Your task to perform on an android device: Go to Amazon Image 0: 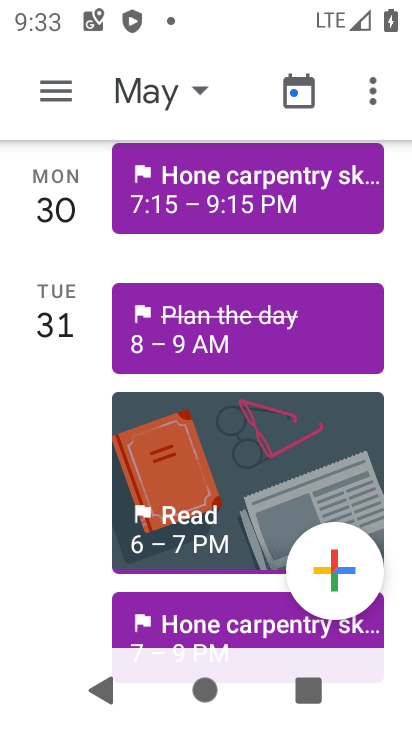
Step 0: press home button
Your task to perform on an android device: Go to Amazon Image 1: 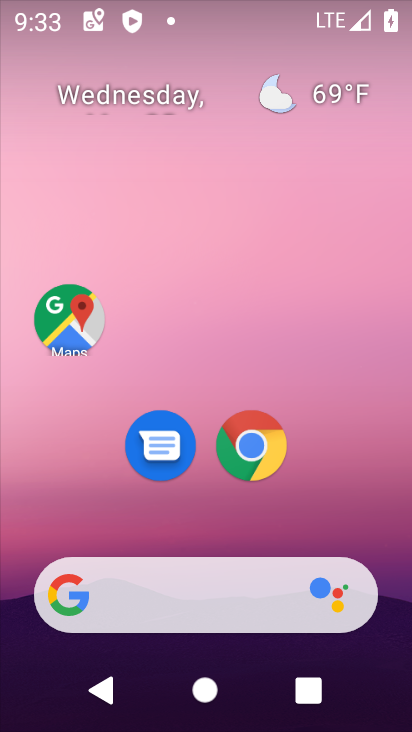
Step 1: drag from (271, 513) to (232, 130)
Your task to perform on an android device: Go to Amazon Image 2: 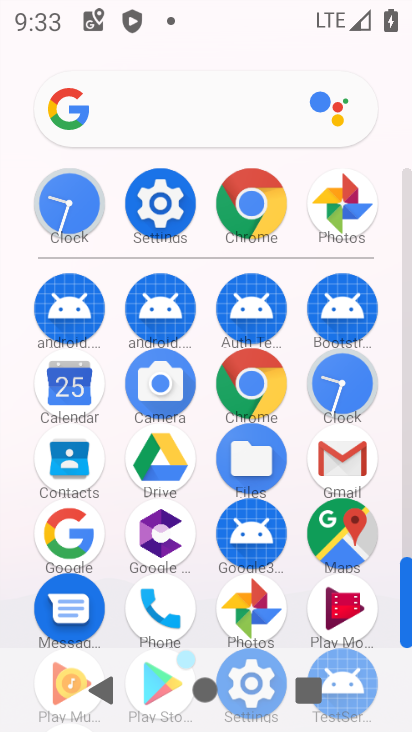
Step 2: click (247, 197)
Your task to perform on an android device: Go to Amazon Image 3: 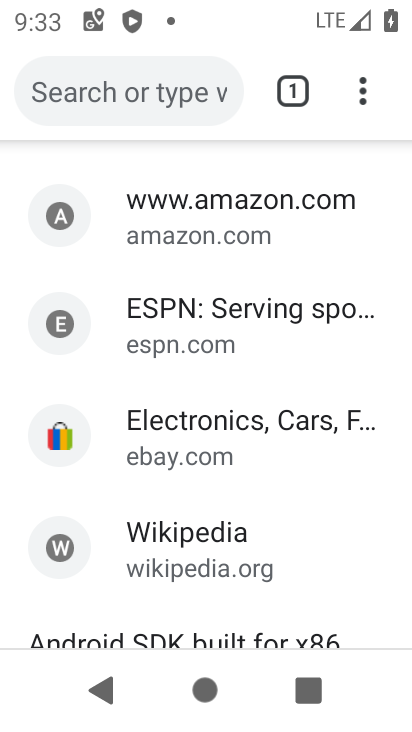
Step 3: drag from (363, 97) to (137, 176)
Your task to perform on an android device: Go to Amazon Image 4: 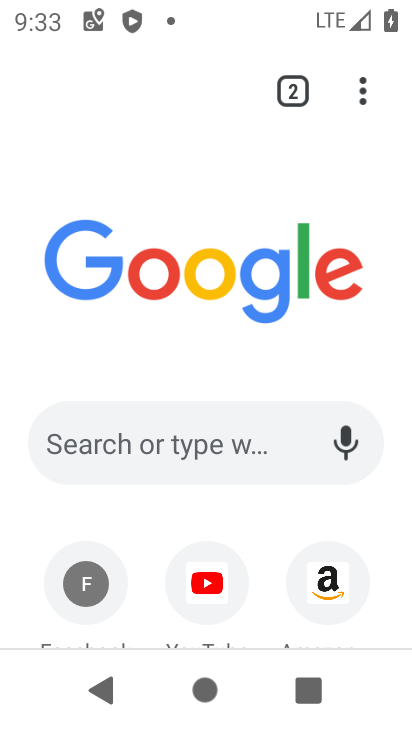
Step 4: click (340, 587)
Your task to perform on an android device: Go to Amazon Image 5: 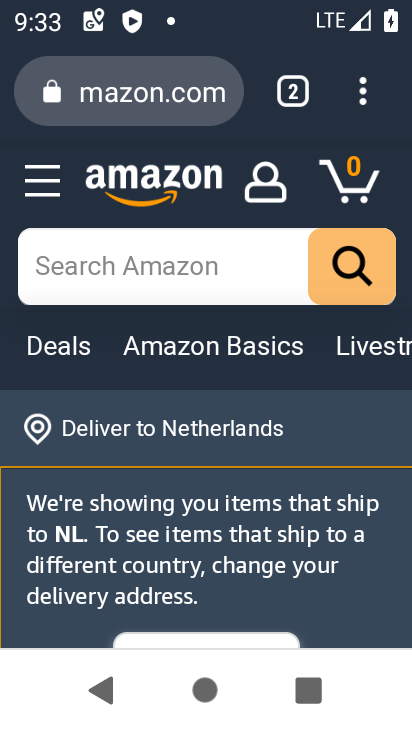
Step 5: task complete